Your task to perform on an android device: Search for pizza restaurants on Maps Image 0: 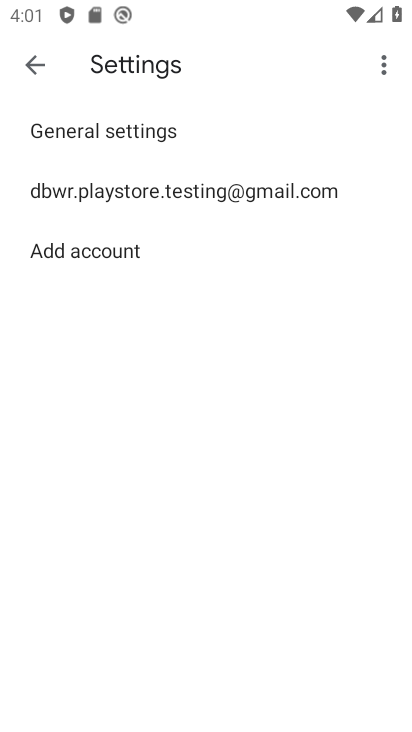
Step 0: press home button
Your task to perform on an android device: Search for pizza restaurants on Maps Image 1: 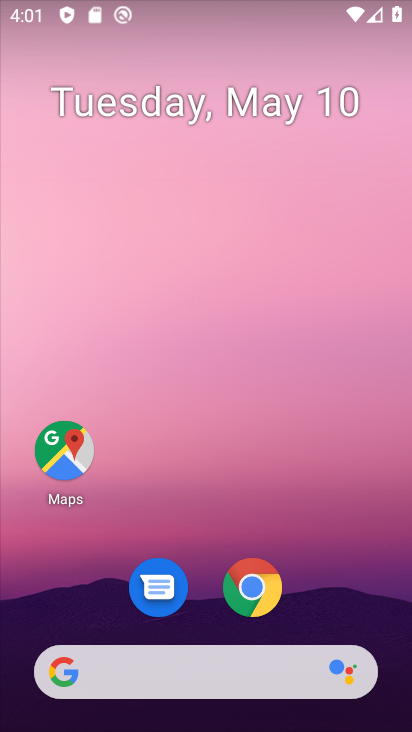
Step 1: drag from (286, 696) to (359, 132)
Your task to perform on an android device: Search for pizza restaurants on Maps Image 2: 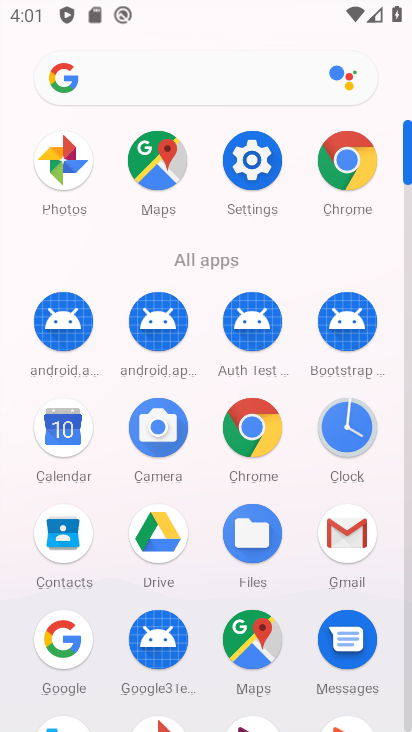
Step 2: click (163, 138)
Your task to perform on an android device: Search for pizza restaurants on Maps Image 3: 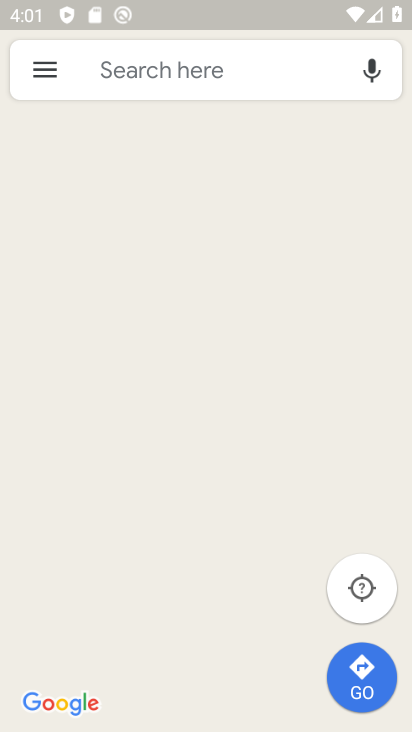
Step 3: click (149, 67)
Your task to perform on an android device: Search for pizza restaurants on Maps Image 4: 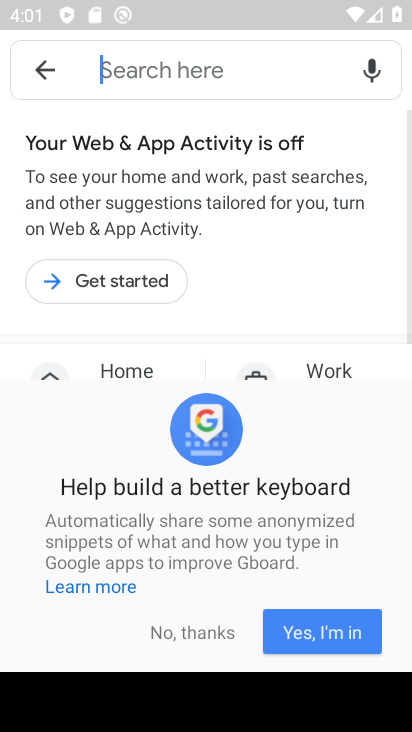
Step 4: click (187, 636)
Your task to perform on an android device: Search for pizza restaurants on Maps Image 5: 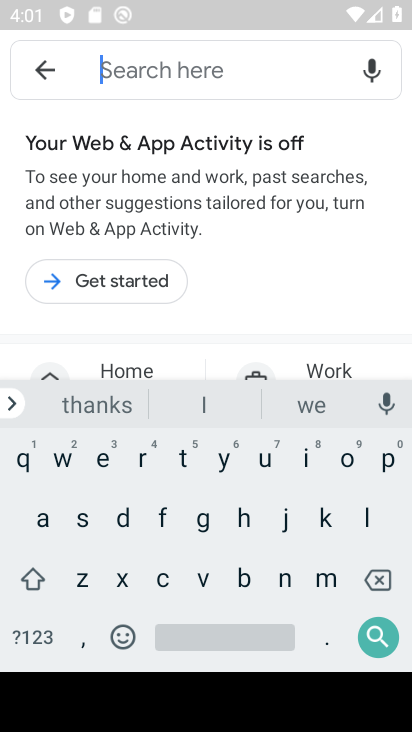
Step 5: click (383, 457)
Your task to perform on an android device: Search for pizza restaurants on Maps Image 6: 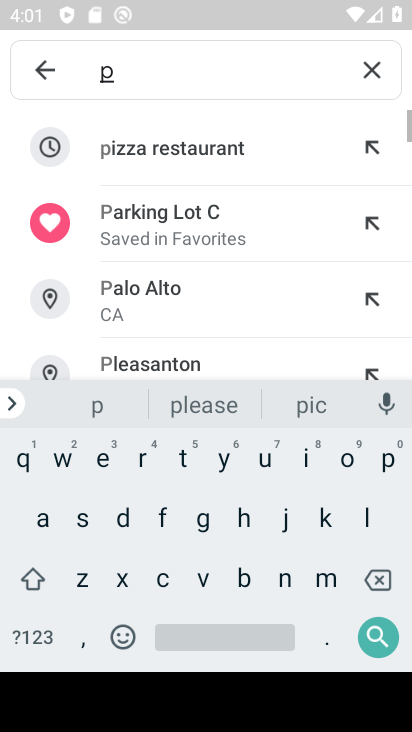
Step 6: click (145, 157)
Your task to perform on an android device: Search for pizza restaurants on Maps Image 7: 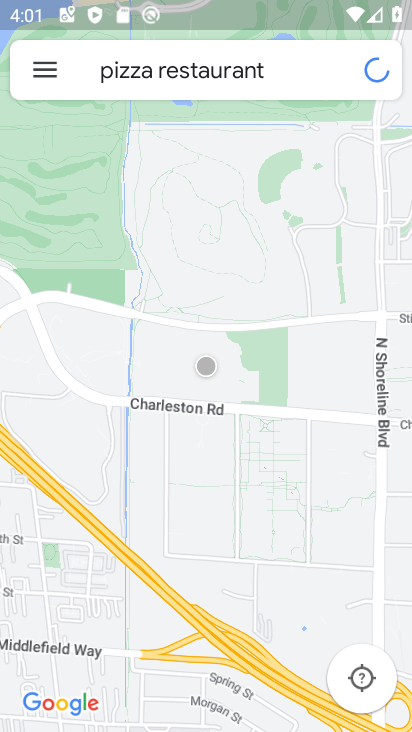
Step 7: task complete